Your task to perform on an android device: Turn on the flashlight Image 0: 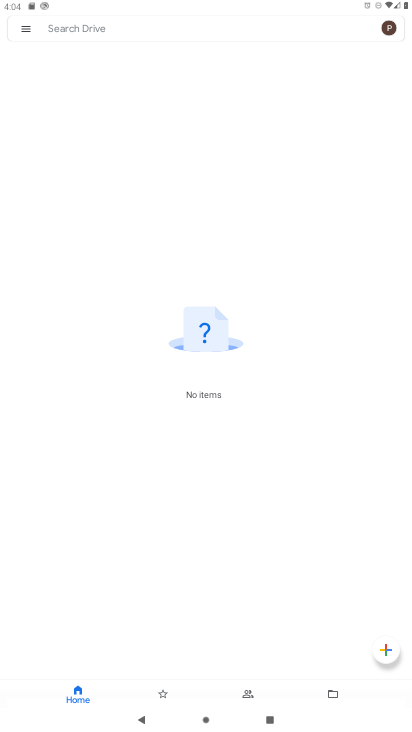
Step 0: press home button
Your task to perform on an android device: Turn on the flashlight Image 1: 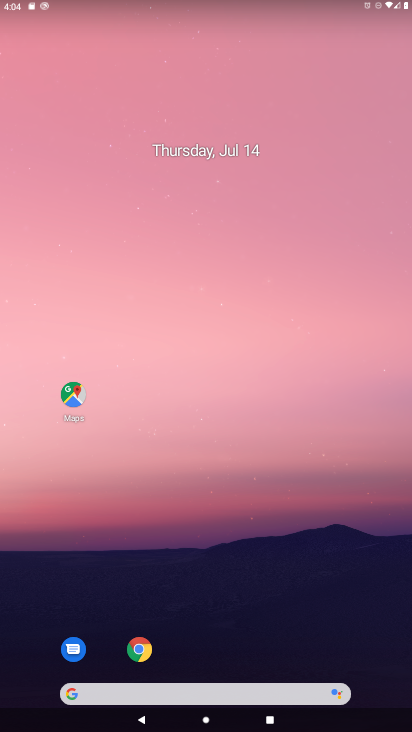
Step 1: drag from (226, 658) to (223, 58)
Your task to perform on an android device: Turn on the flashlight Image 2: 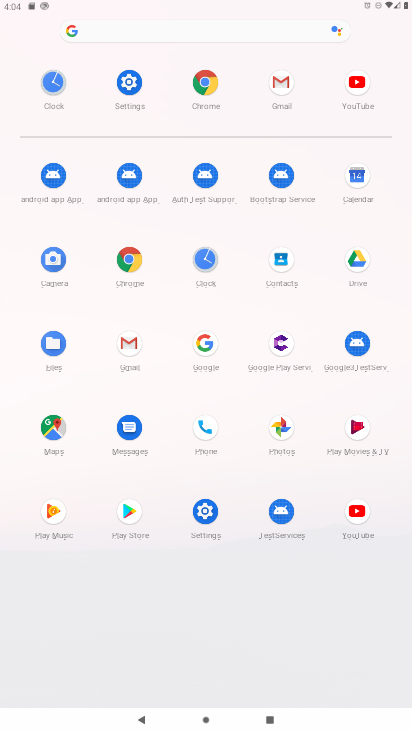
Step 2: click (195, 514)
Your task to perform on an android device: Turn on the flashlight Image 3: 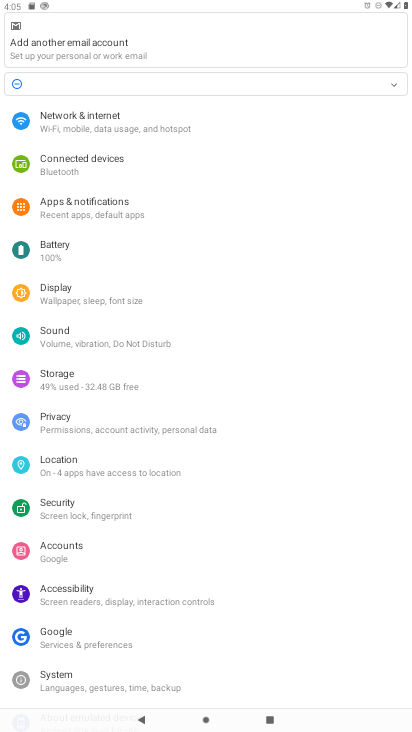
Step 3: drag from (188, 133) to (223, 679)
Your task to perform on an android device: Turn on the flashlight Image 4: 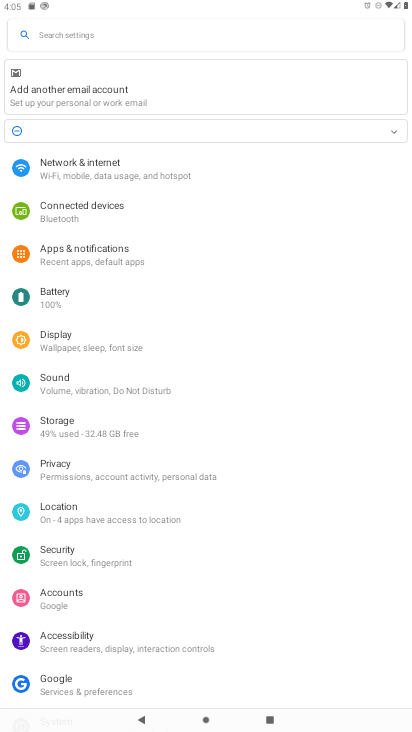
Step 4: click (152, 29)
Your task to perform on an android device: Turn on the flashlight Image 5: 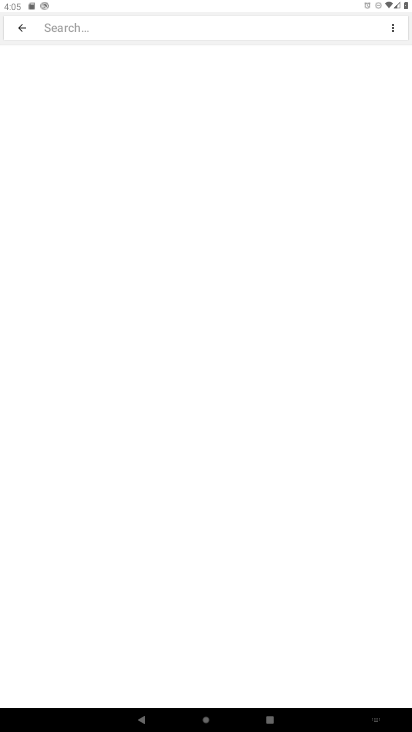
Step 5: type "flashlight"
Your task to perform on an android device: Turn on the flashlight Image 6: 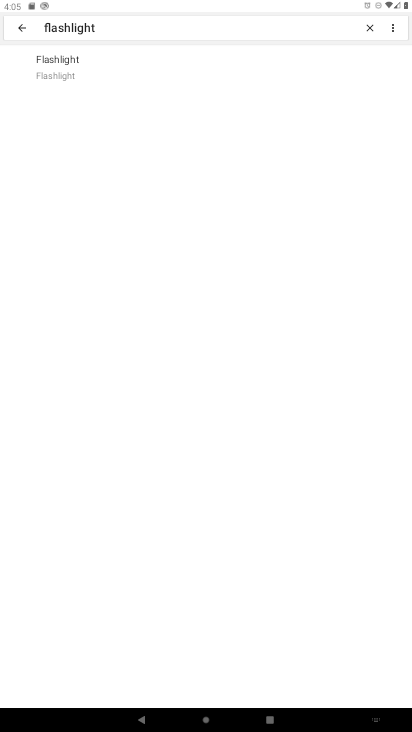
Step 6: click (58, 68)
Your task to perform on an android device: Turn on the flashlight Image 7: 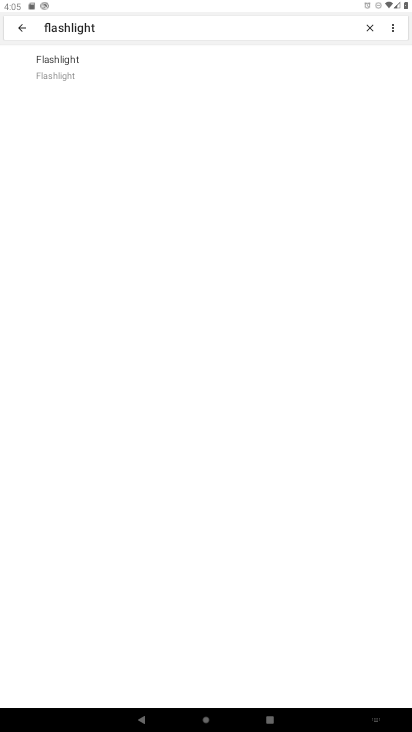
Step 7: click (70, 58)
Your task to perform on an android device: Turn on the flashlight Image 8: 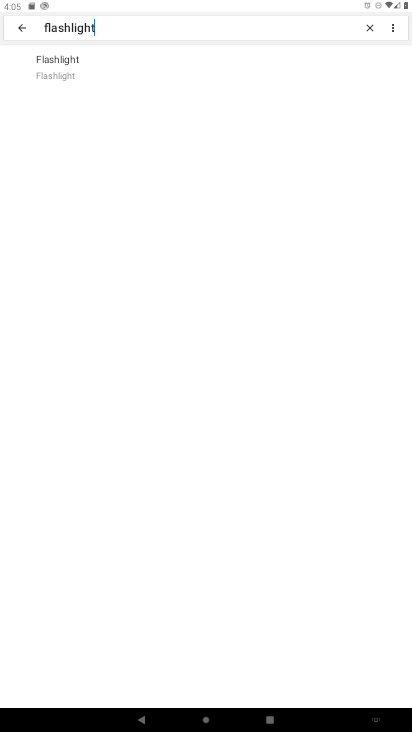
Step 8: click (86, 66)
Your task to perform on an android device: Turn on the flashlight Image 9: 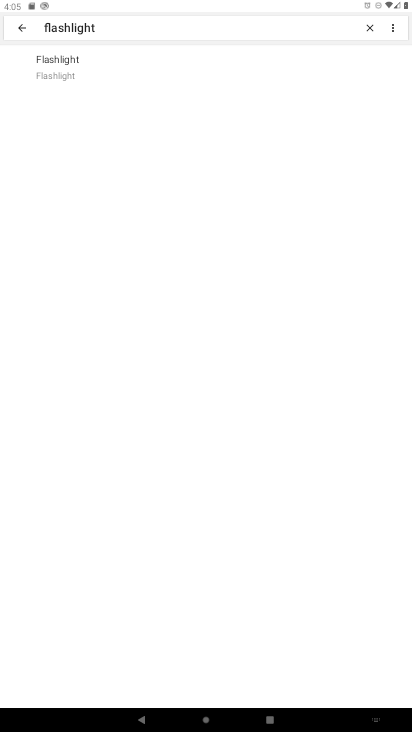
Step 9: task complete